Your task to perform on an android device: turn on the 12-hour format for clock Image 0: 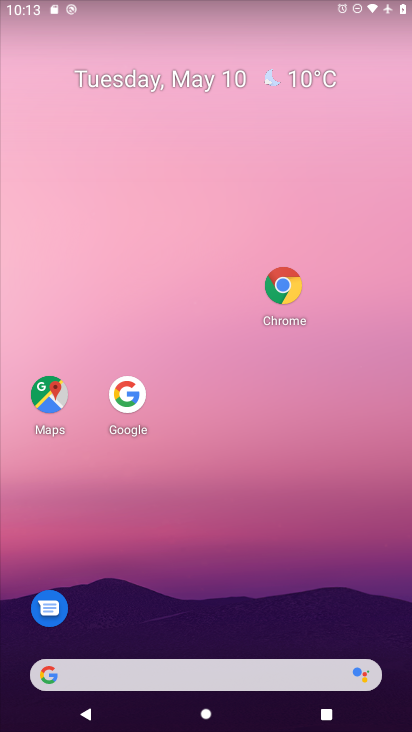
Step 0: press home button
Your task to perform on an android device: turn on the 12-hour format for clock Image 1: 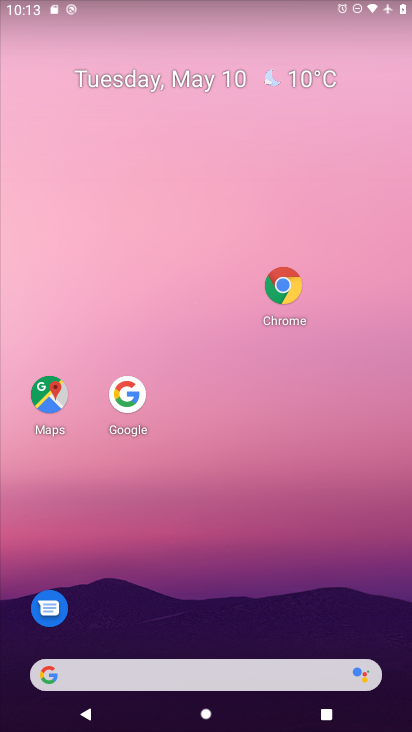
Step 1: drag from (187, 667) to (302, 107)
Your task to perform on an android device: turn on the 12-hour format for clock Image 2: 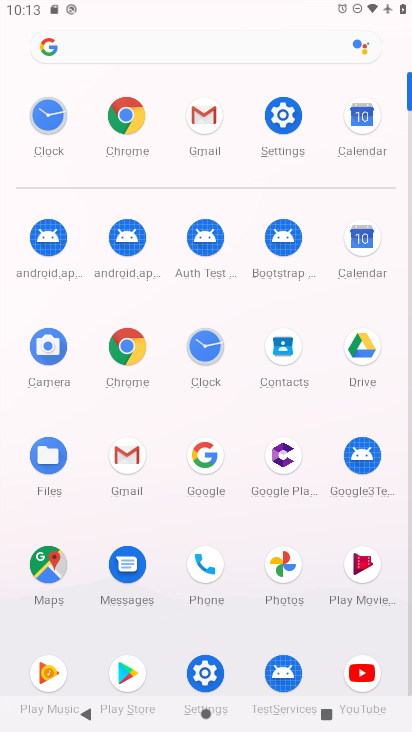
Step 2: click (46, 113)
Your task to perform on an android device: turn on the 12-hour format for clock Image 3: 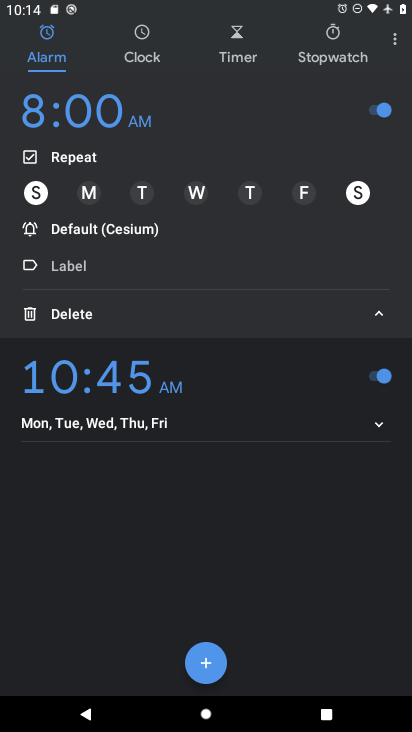
Step 3: click (401, 40)
Your task to perform on an android device: turn on the 12-hour format for clock Image 4: 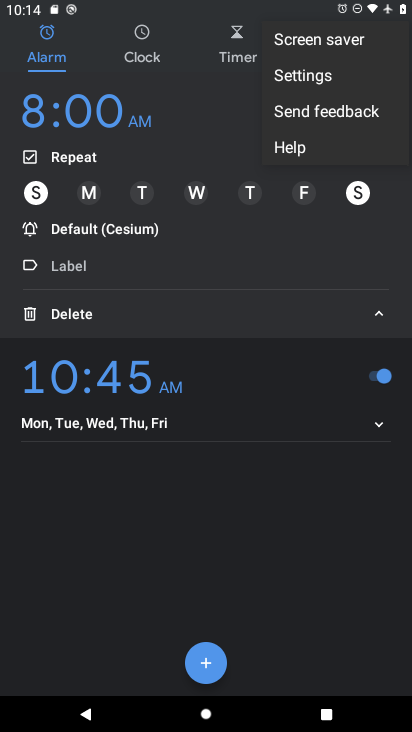
Step 4: click (315, 76)
Your task to perform on an android device: turn on the 12-hour format for clock Image 5: 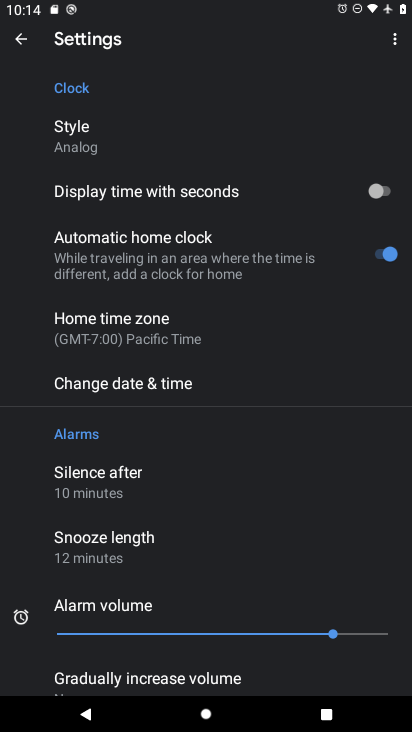
Step 5: click (138, 387)
Your task to perform on an android device: turn on the 12-hour format for clock Image 6: 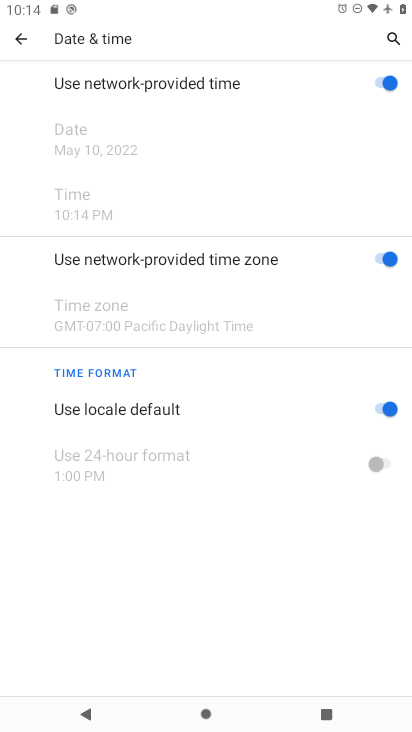
Step 6: task complete